Your task to perform on an android device: change keyboard looks Image 0: 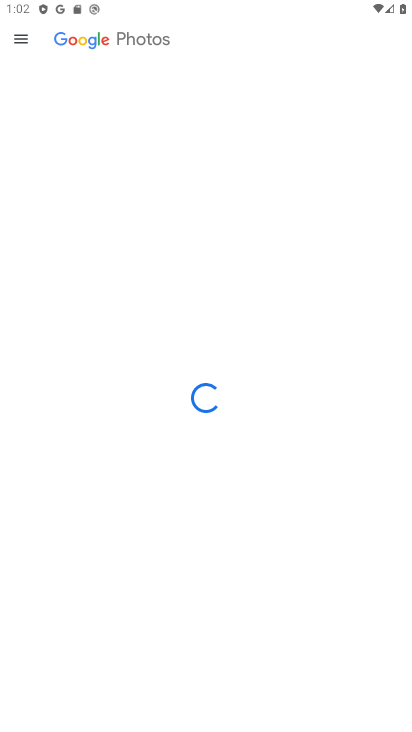
Step 0: press home button
Your task to perform on an android device: change keyboard looks Image 1: 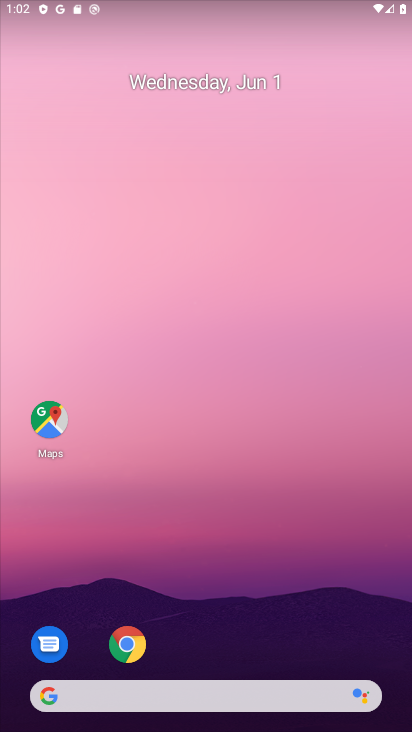
Step 1: drag from (161, 693) to (290, 168)
Your task to perform on an android device: change keyboard looks Image 2: 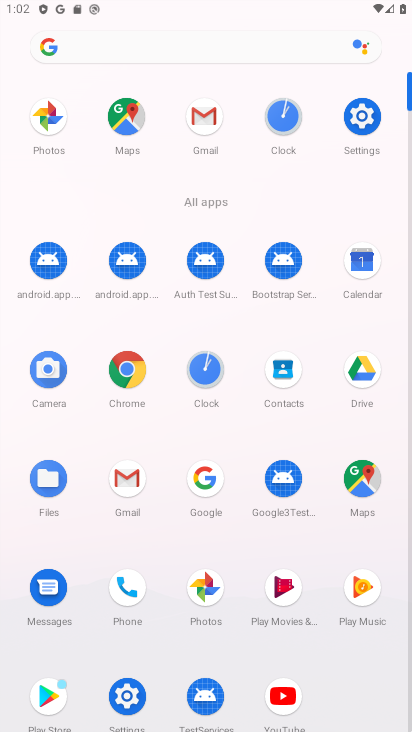
Step 2: click (356, 126)
Your task to perform on an android device: change keyboard looks Image 3: 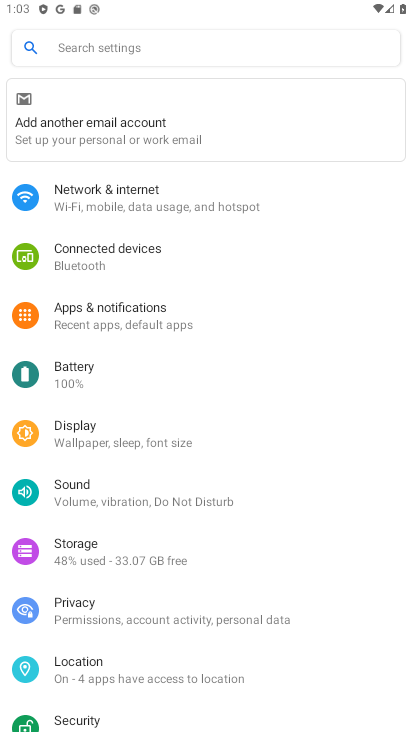
Step 3: drag from (200, 653) to (274, 180)
Your task to perform on an android device: change keyboard looks Image 4: 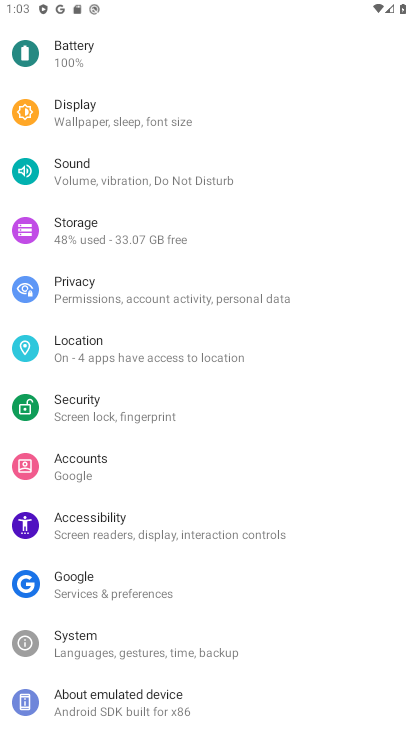
Step 4: click (104, 644)
Your task to perform on an android device: change keyboard looks Image 5: 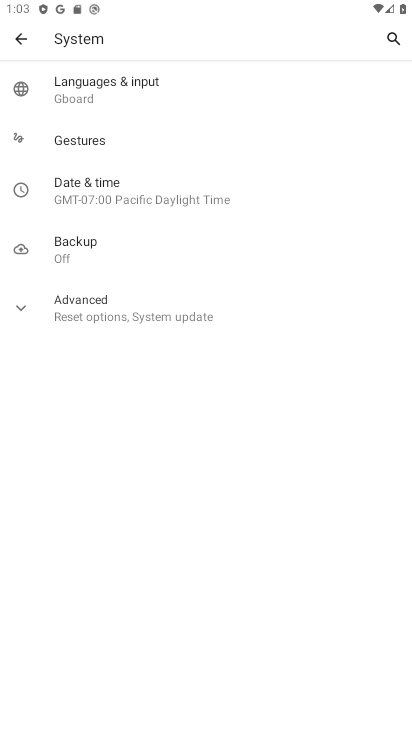
Step 5: click (97, 93)
Your task to perform on an android device: change keyboard looks Image 6: 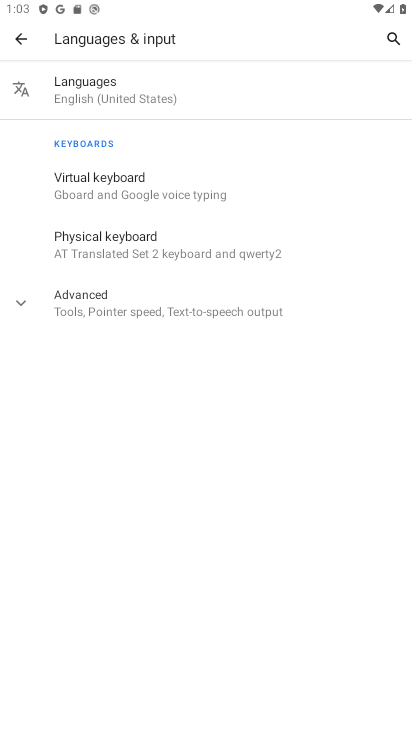
Step 6: click (124, 193)
Your task to perform on an android device: change keyboard looks Image 7: 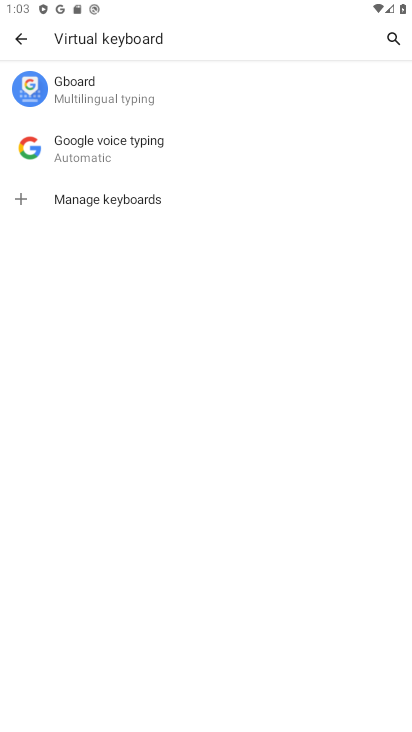
Step 7: click (92, 94)
Your task to perform on an android device: change keyboard looks Image 8: 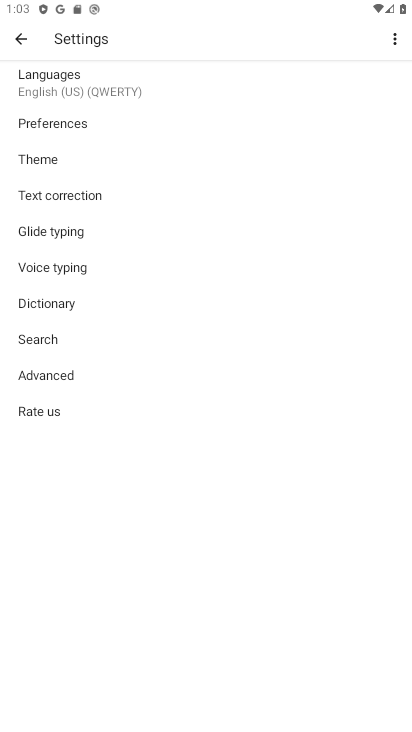
Step 8: click (56, 151)
Your task to perform on an android device: change keyboard looks Image 9: 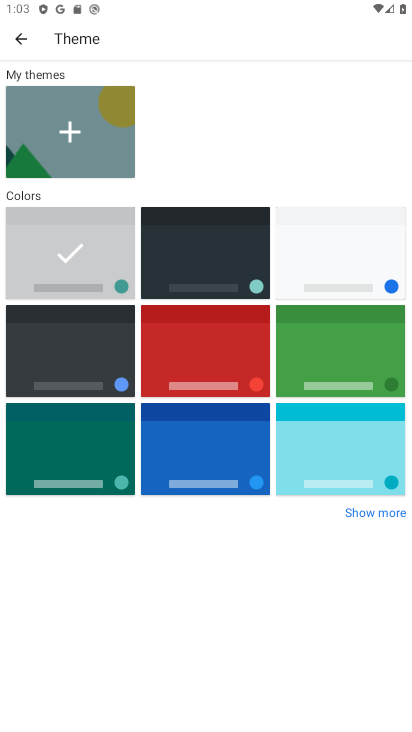
Step 9: click (224, 354)
Your task to perform on an android device: change keyboard looks Image 10: 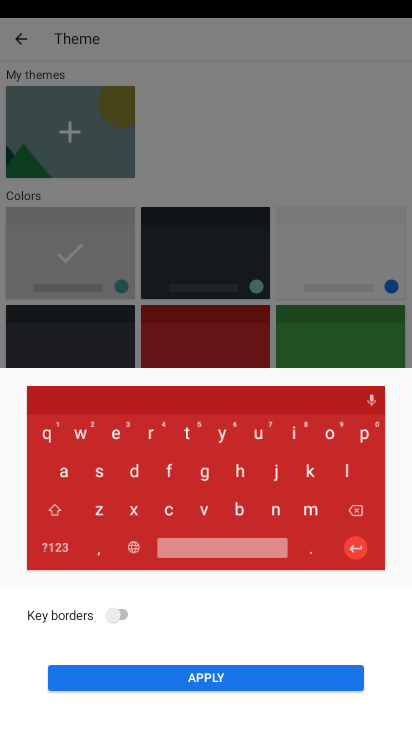
Step 10: click (215, 675)
Your task to perform on an android device: change keyboard looks Image 11: 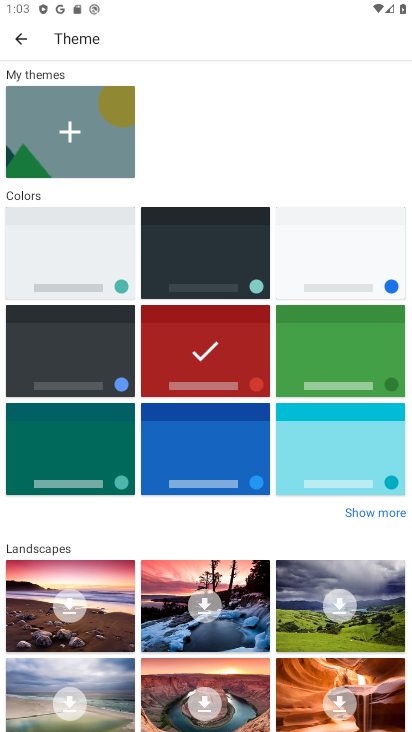
Step 11: task complete